Your task to perform on an android device: see creations saved in the google photos Image 0: 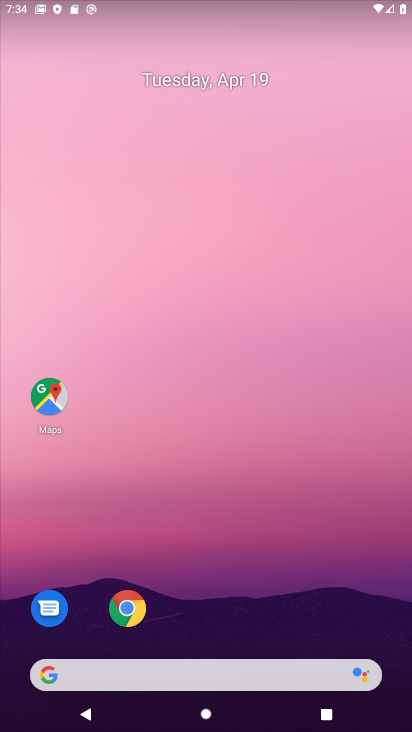
Step 0: drag from (258, 563) to (219, 208)
Your task to perform on an android device: see creations saved in the google photos Image 1: 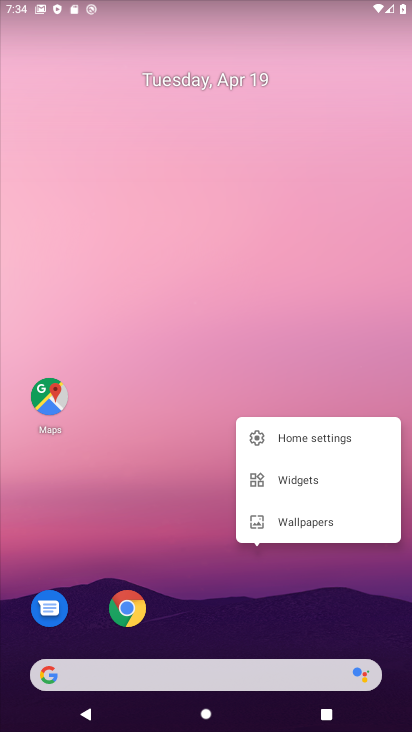
Step 1: click (168, 420)
Your task to perform on an android device: see creations saved in the google photos Image 2: 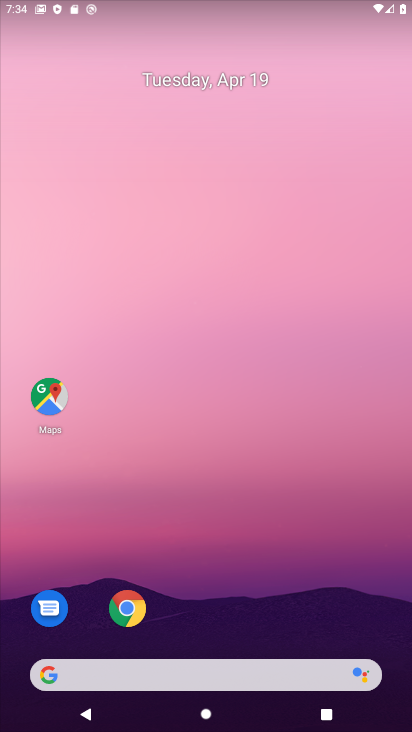
Step 2: drag from (217, 589) to (227, 136)
Your task to perform on an android device: see creations saved in the google photos Image 3: 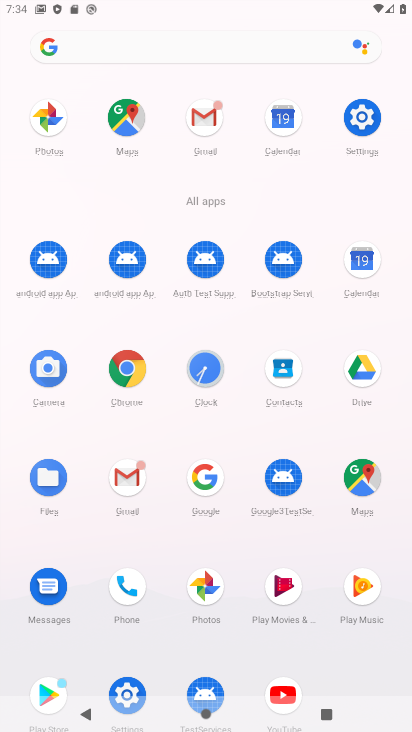
Step 3: click (197, 609)
Your task to perform on an android device: see creations saved in the google photos Image 4: 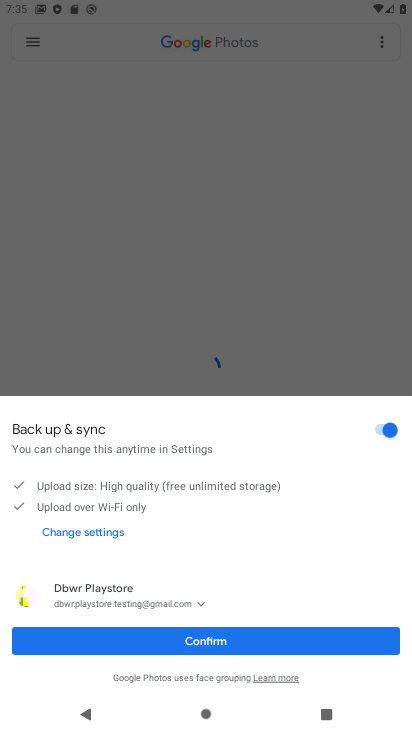
Step 4: click (229, 627)
Your task to perform on an android device: see creations saved in the google photos Image 5: 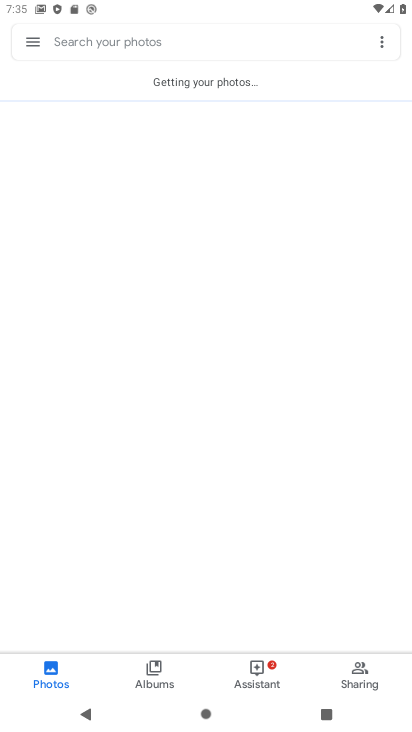
Step 5: click (162, 660)
Your task to perform on an android device: see creations saved in the google photos Image 6: 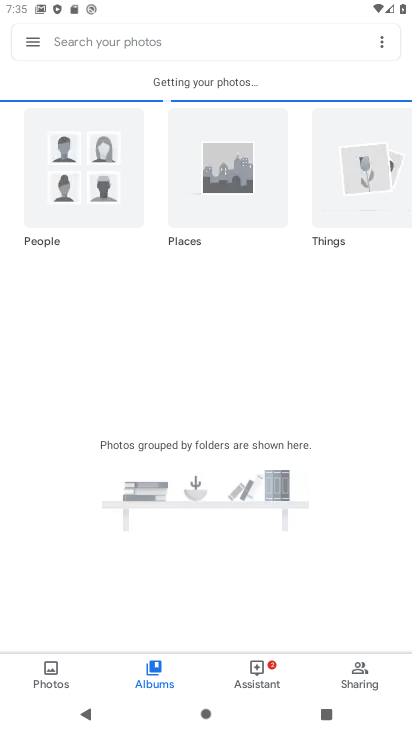
Step 6: click (30, 47)
Your task to perform on an android device: see creations saved in the google photos Image 7: 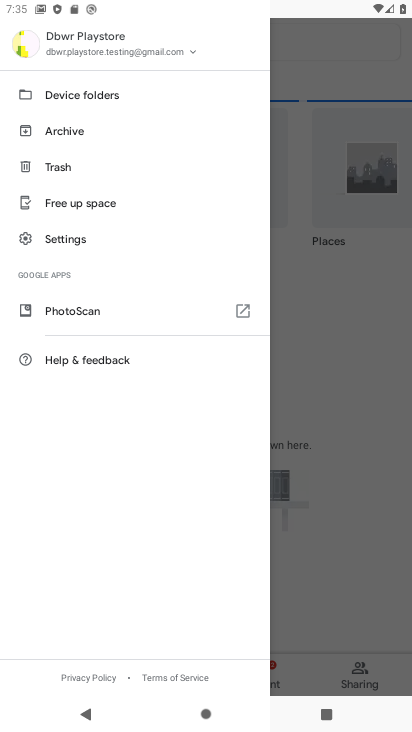
Step 7: click (42, 139)
Your task to perform on an android device: see creations saved in the google photos Image 8: 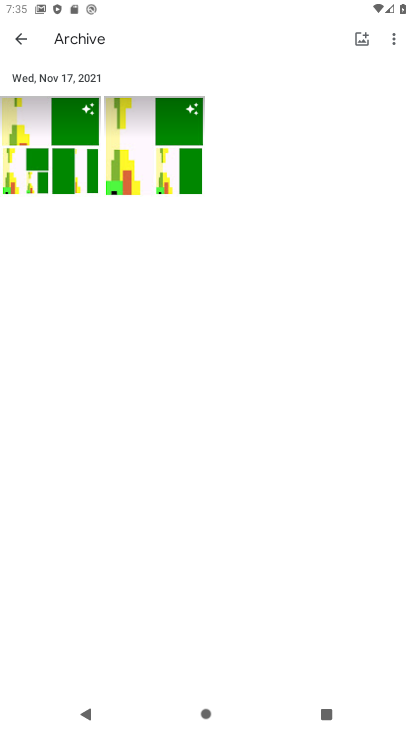
Step 8: task complete